Your task to perform on an android device: Search for sushi restaurants on Maps Image 0: 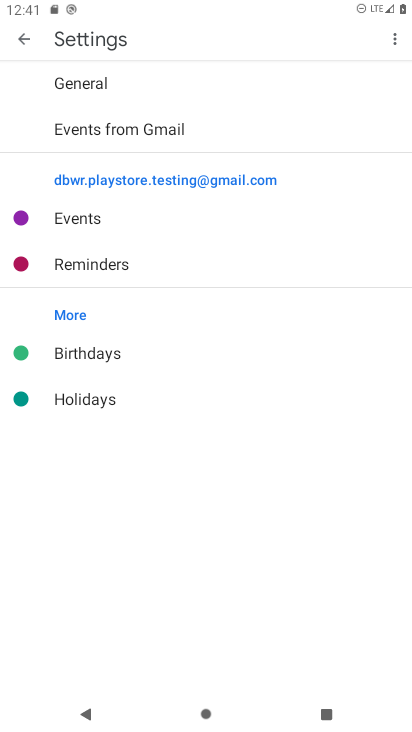
Step 0: press home button
Your task to perform on an android device: Search for sushi restaurants on Maps Image 1: 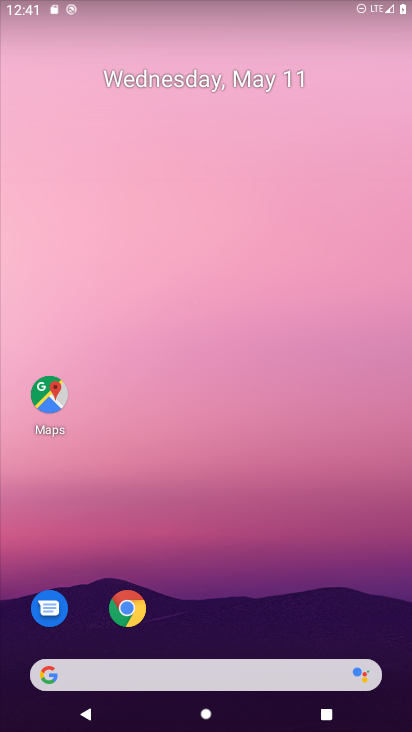
Step 1: click (47, 395)
Your task to perform on an android device: Search for sushi restaurants on Maps Image 2: 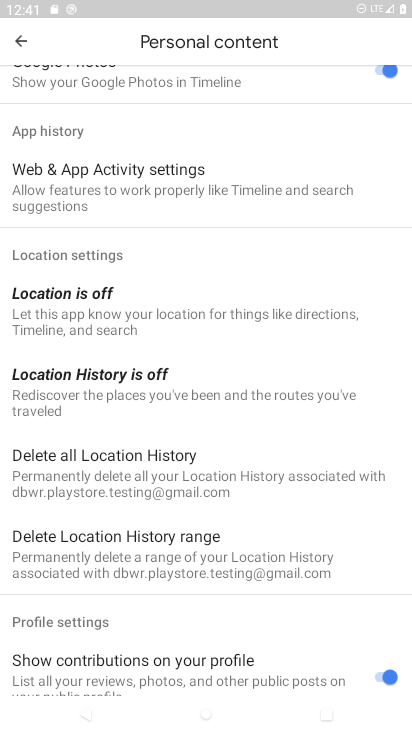
Step 2: click (23, 34)
Your task to perform on an android device: Search for sushi restaurants on Maps Image 3: 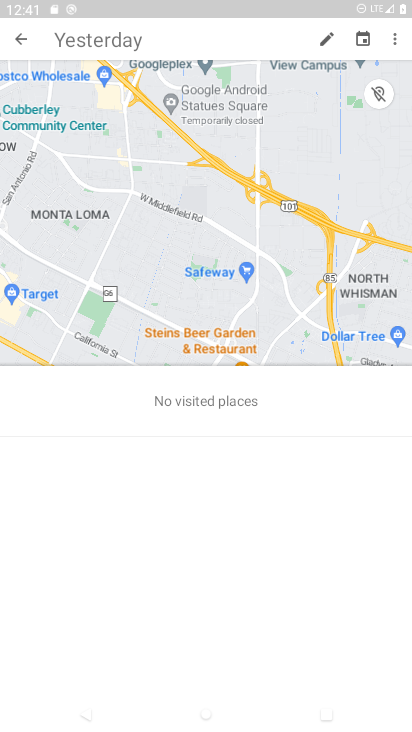
Step 3: click (19, 33)
Your task to perform on an android device: Search for sushi restaurants on Maps Image 4: 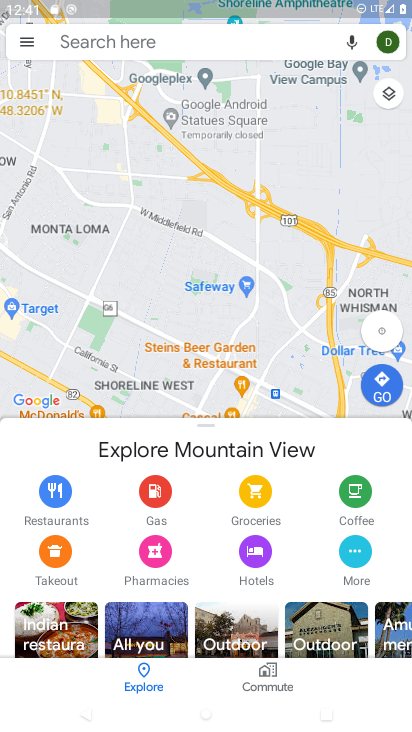
Step 4: click (96, 36)
Your task to perform on an android device: Search for sushi restaurants on Maps Image 5: 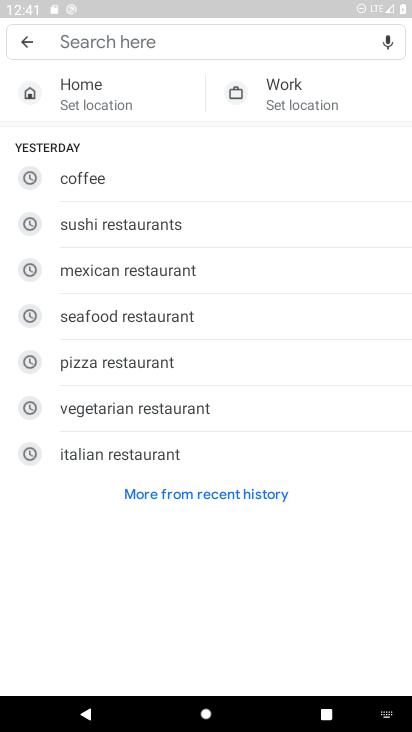
Step 5: click (129, 219)
Your task to perform on an android device: Search for sushi restaurants on Maps Image 6: 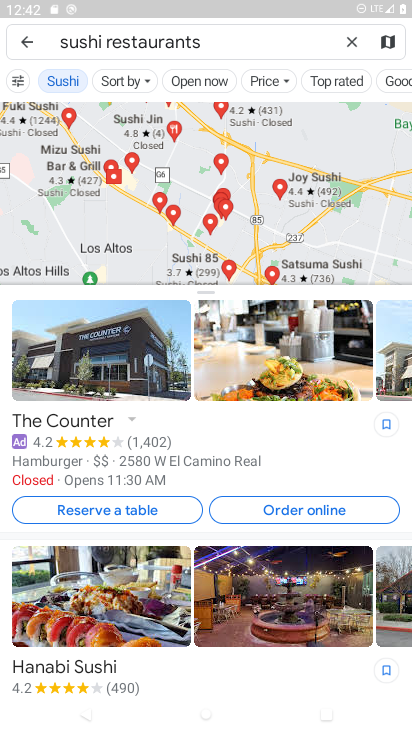
Step 6: task complete